Your task to perform on an android device: open chrome and create a bookmark for the current page Image 0: 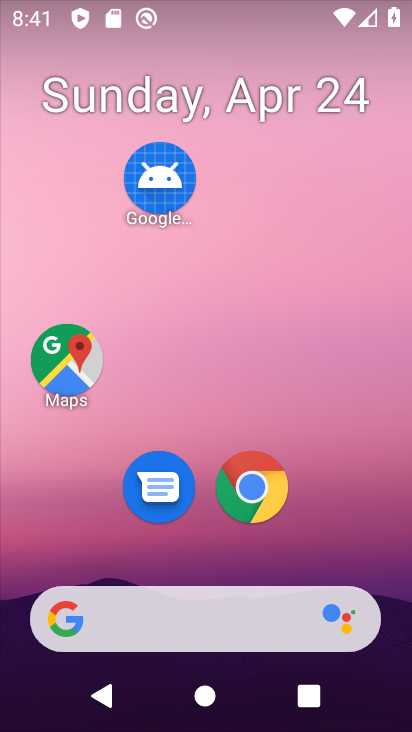
Step 0: click (260, 505)
Your task to perform on an android device: open chrome and create a bookmark for the current page Image 1: 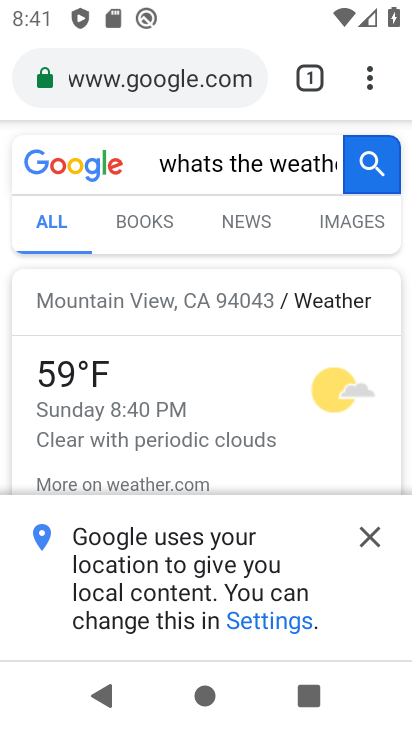
Step 1: click (370, 77)
Your task to perform on an android device: open chrome and create a bookmark for the current page Image 2: 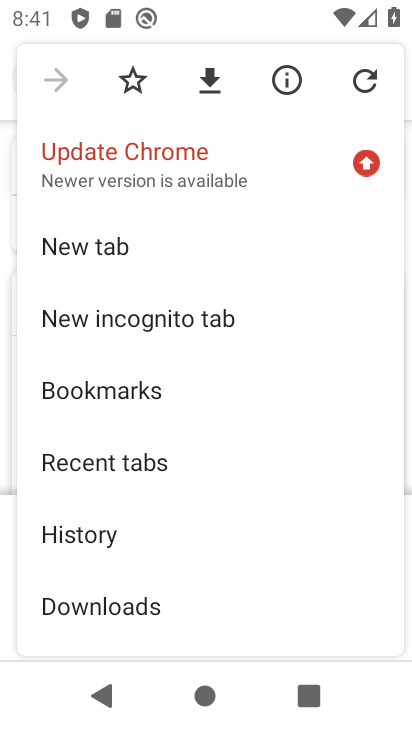
Step 2: click (137, 86)
Your task to perform on an android device: open chrome and create a bookmark for the current page Image 3: 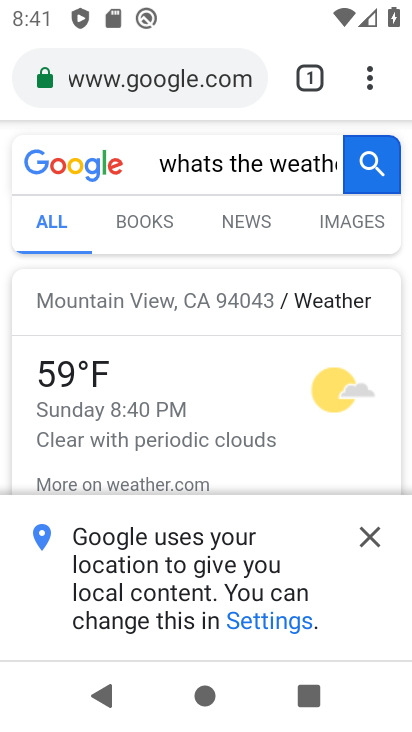
Step 3: task complete